Your task to perform on an android device: turn on location history Image 0: 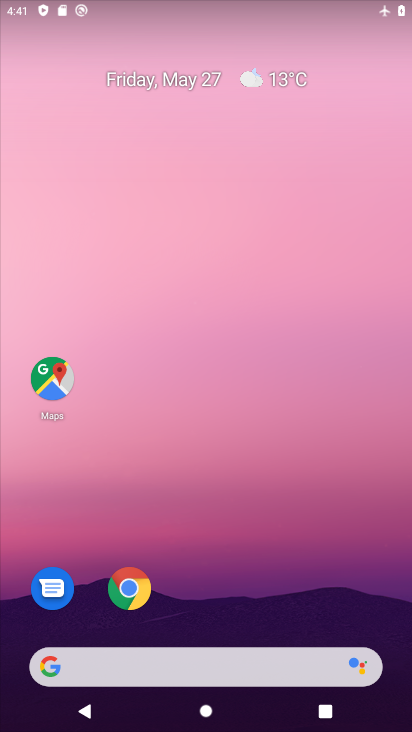
Step 0: drag from (168, 585) to (246, 49)
Your task to perform on an android device: turn on location history Image 1: 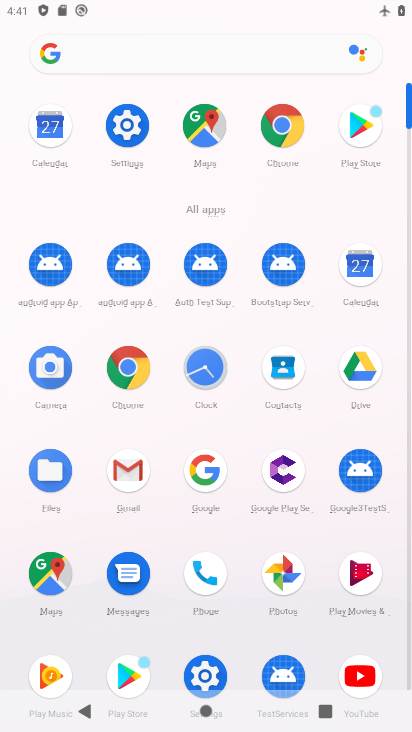
Step 1: click (117, 122)
Your task to perform on an android device: turn on location history Image 2: 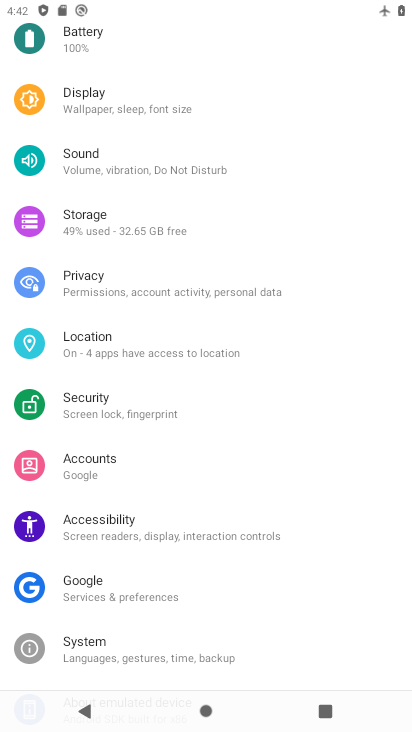
Step 2: click (119, 344)
Your task to perform on an android device: turn on location history Image 3: 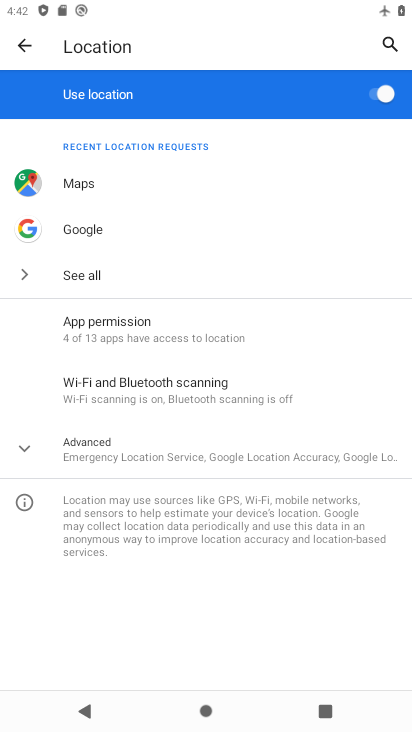
Step 3: click (105, 451)
Your task to perform on an android device: turn on location history Image 4: 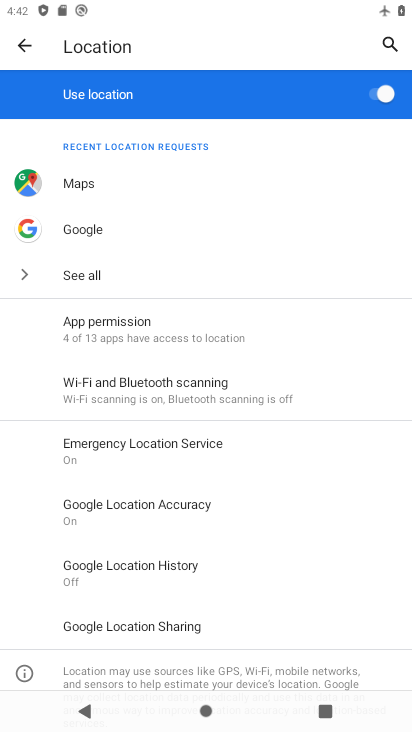
Step 4: click (122, 559)
Your task to perform on an android device: turn on location history Image 5: 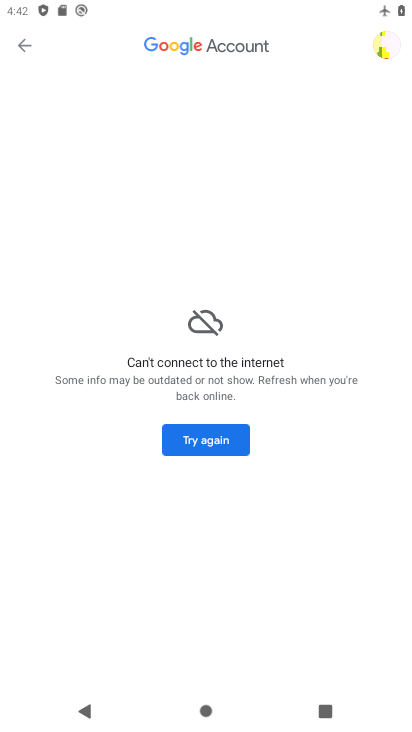
Step 5: click (196, 437)
Your task to perform on an android device: turn on location history Image 6: 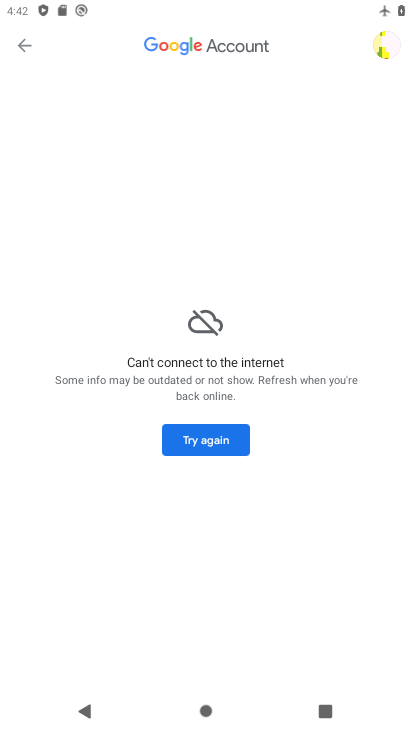
Step 6: drag from (374, 7) to (201, 674)
Your task to perform on an android device: turn on location history Image 7: 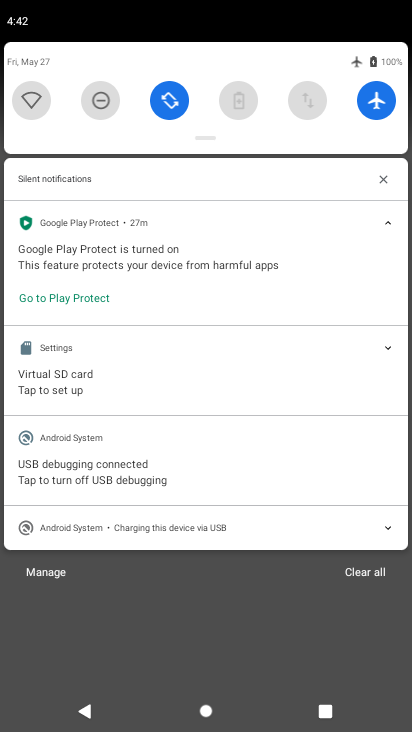
Step 7: click (380, 118)
Your task to perform on an android device: turn on location history Image 8: 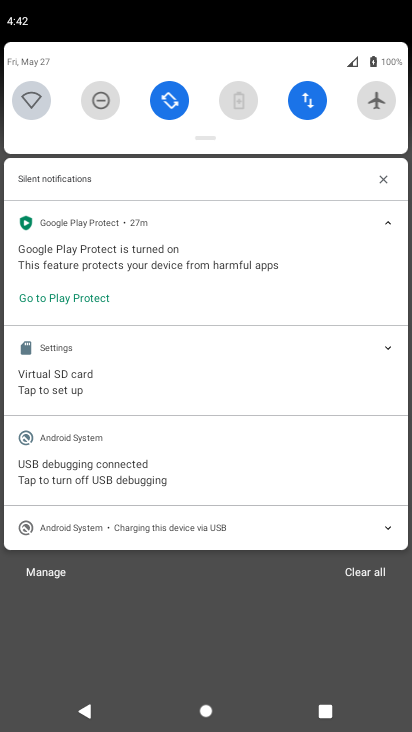
Step 8: click (228, 605)
Your task to perform on an android device: turn on location history Image 9: 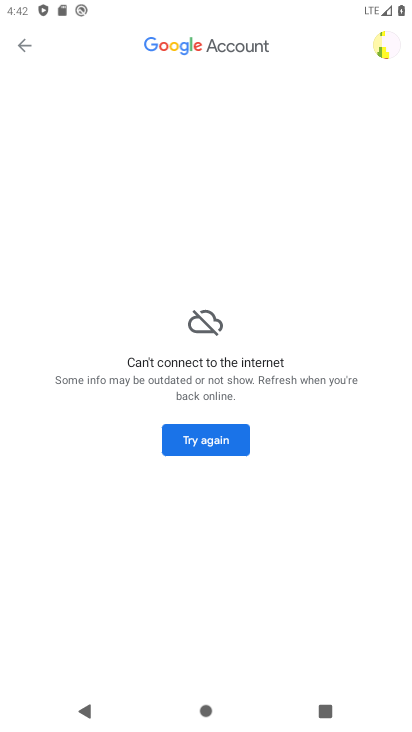
Step 9: click (208, 446)
Your task to perform on an android device: turn on location history Image 10: 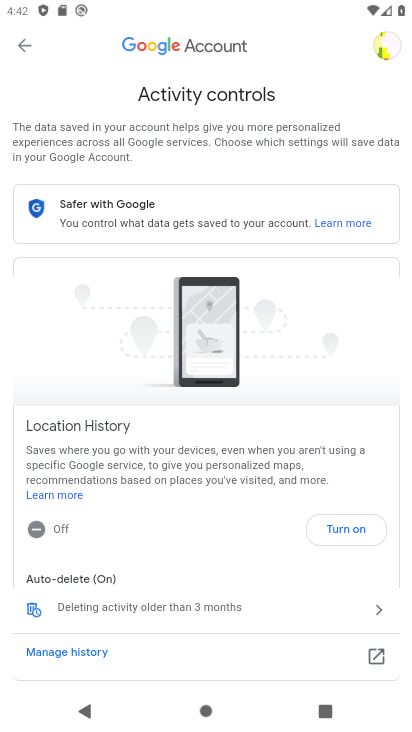
Step 10: click (359, 530)
Your task to perform on an android device: turn on location history Image 11: 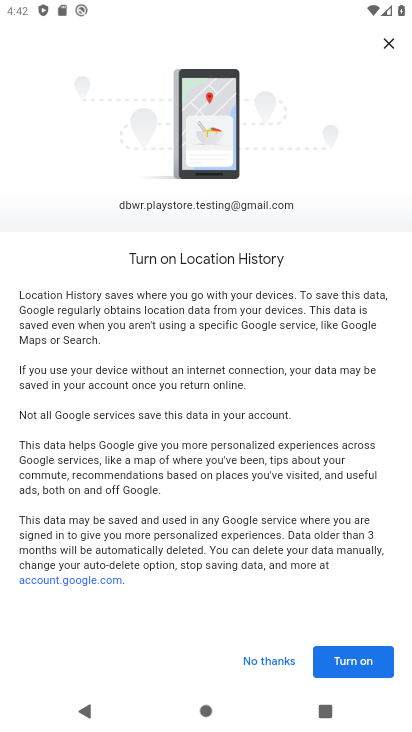
Step 11: click (375, 666)
Your task to perform on an android device: turn on location history Image 12: 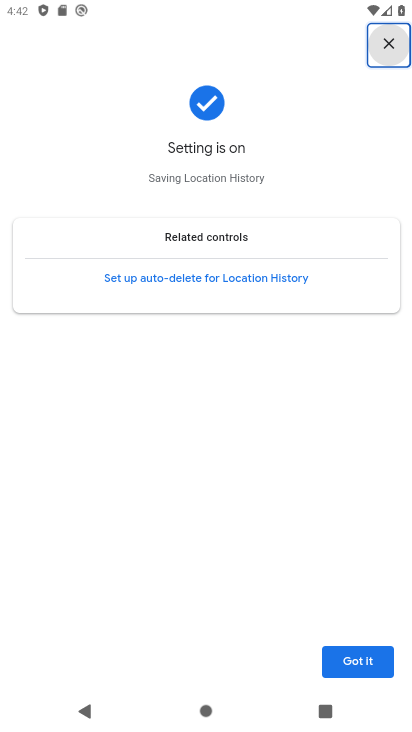
Step 12: click (340, 670)
Your task to perform on an android device: turn on location history Image 13: 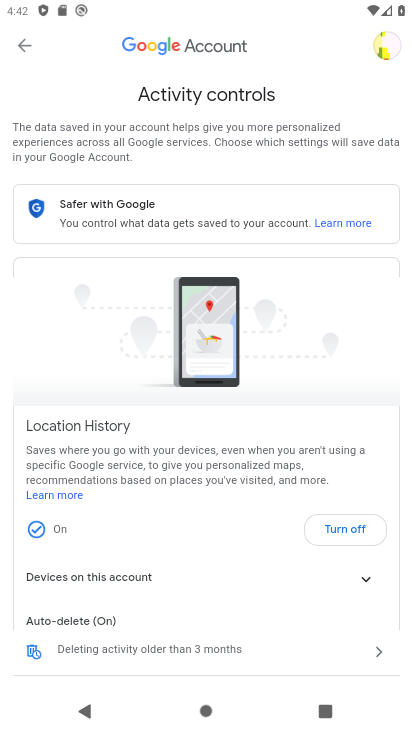
Step 13: task complete